Your task to perform on an android device: delete location history Image 0: 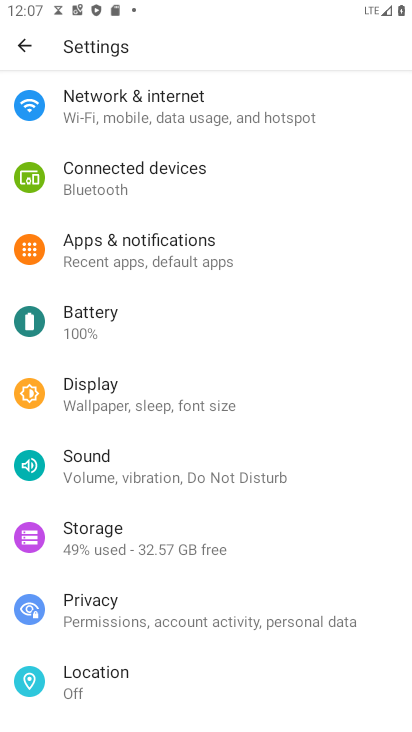
Step 0: press home button
Your task to perform on an android device: delete location history Image 1: 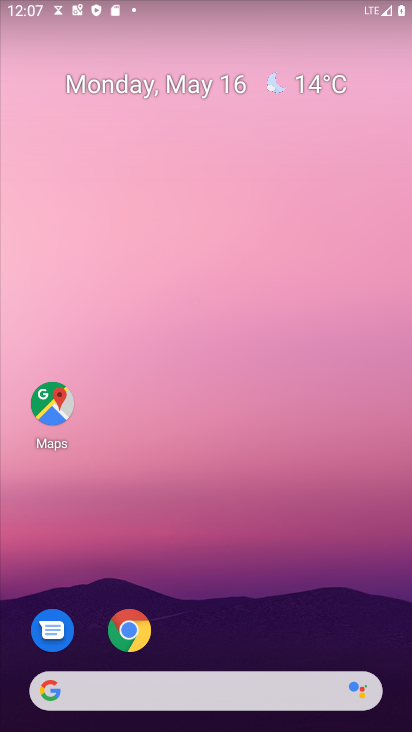
Step 1: drag from (35, 531) to (232, 131)
Your task to perform on an android device: delete location history Image 2: 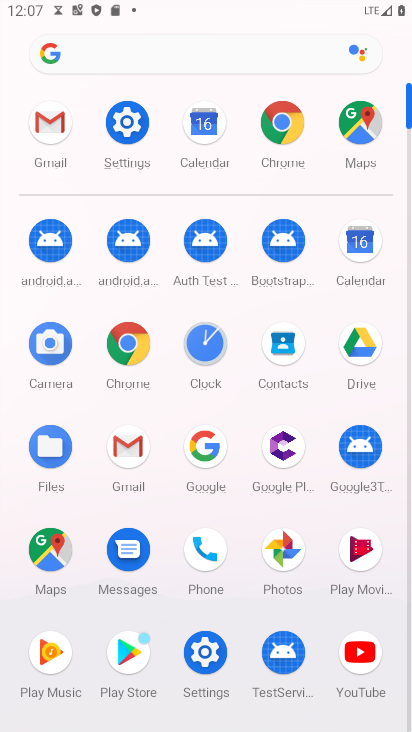
Step 2: click (115, 110)
Your task to perform on an android device: delete location history Image 3: 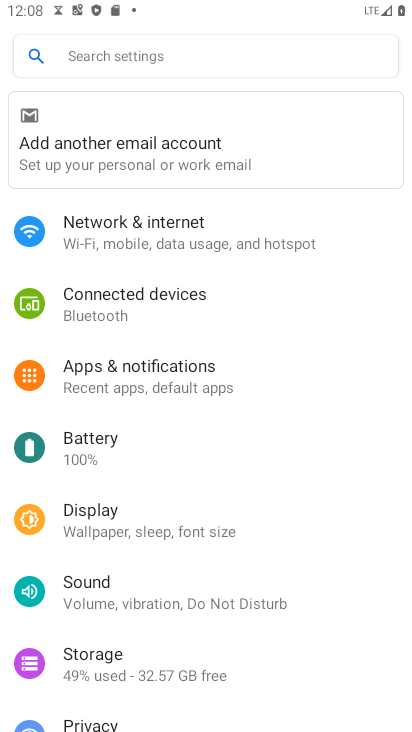
Step 3: drag from (71, 664) to (193, 303)
Your task to perform on an android device: delete location history Image 4: 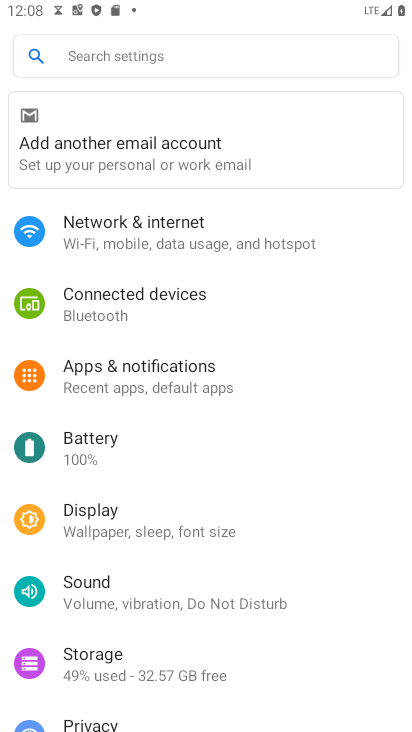
Step 4: drag from (59, 698) to (271, 147)
Your task to perform on an android device: delete location history Image 5: 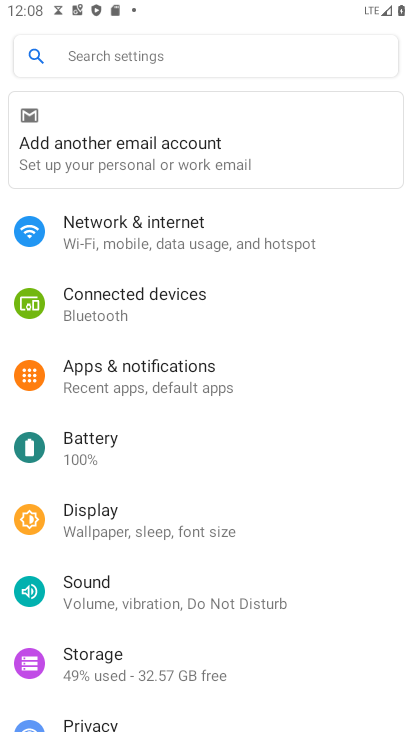
Step 5: drag from (124, 632) to (247, 201)
Your task to perform on an android device: delete location history Image 6: 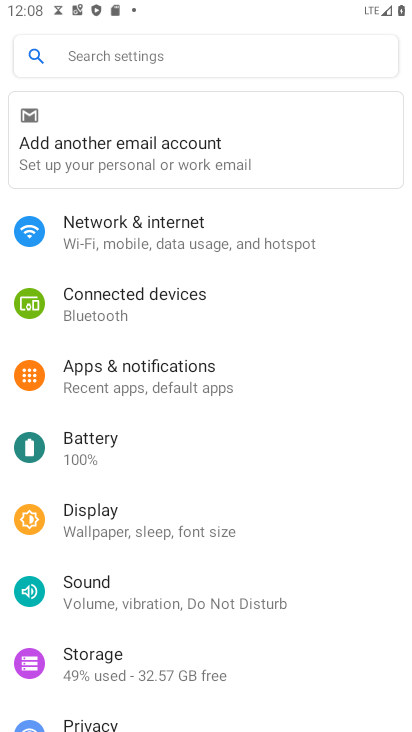
Step 6: drag from (47, 666) to (254, 272)
Your task to perform on an android device: delete location history Image 7: 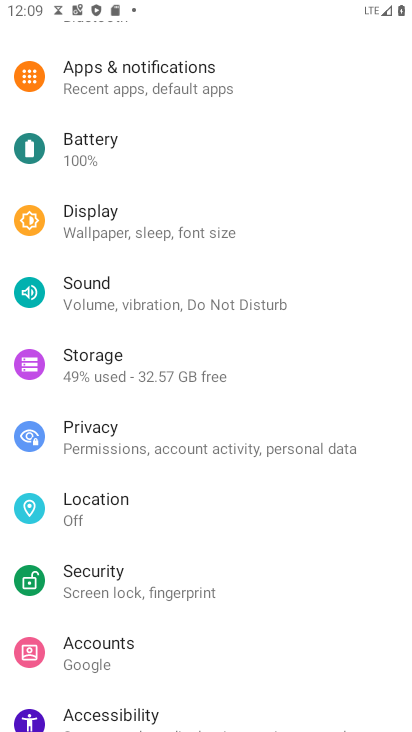
Step 7: drag from (2, 671) to (193, 313)
Your task to perform on an android device: delete location history Image 8: 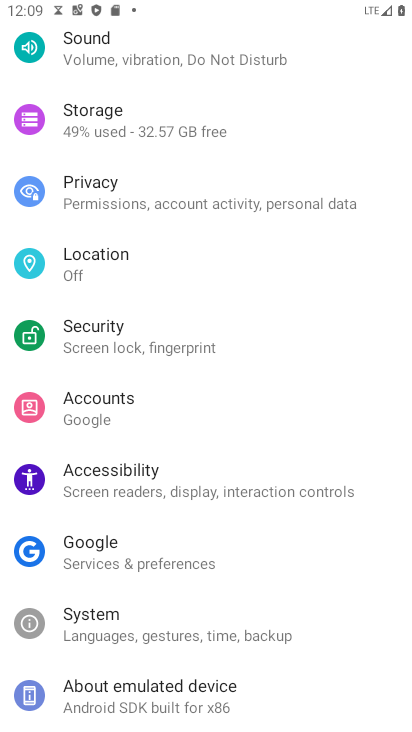
Step 8: drag from (164, 182) to (6, 679)
Your task to perform on an android device: delete location history Image 9: 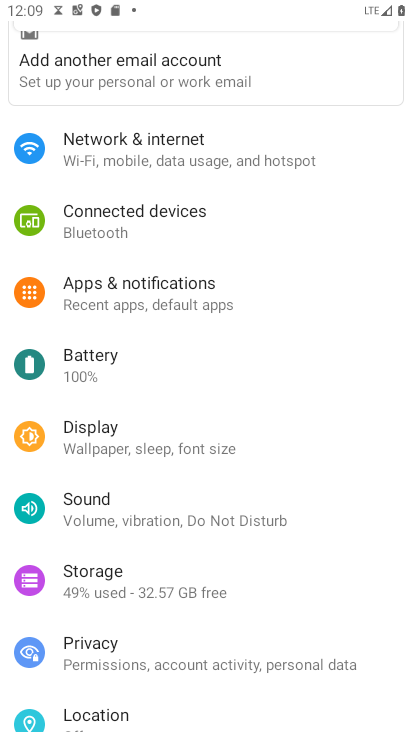
Step 9: click (127, 704)
Your task to perform on an android device: delete location history Image 10: 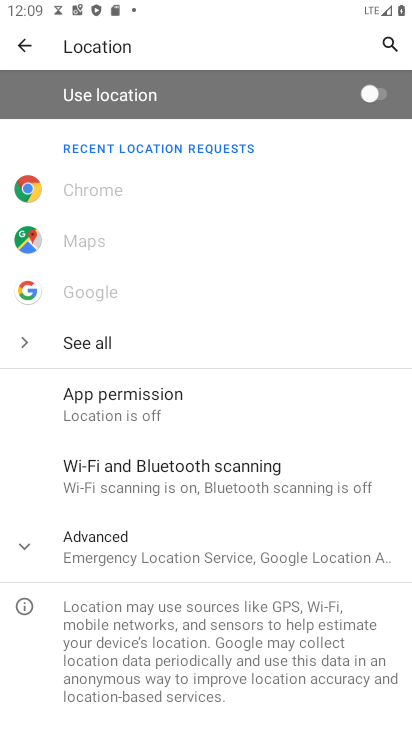
Step 10: click (163, 550)
Your task to perform on an android device: delete location history Image 11: 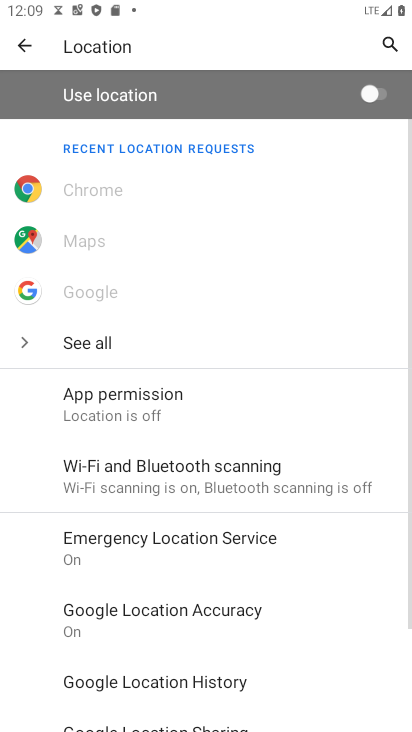
Step 11: drag from (75, 685) to (203, 281)
Your task to perform on an android device: delete location history Image 12: 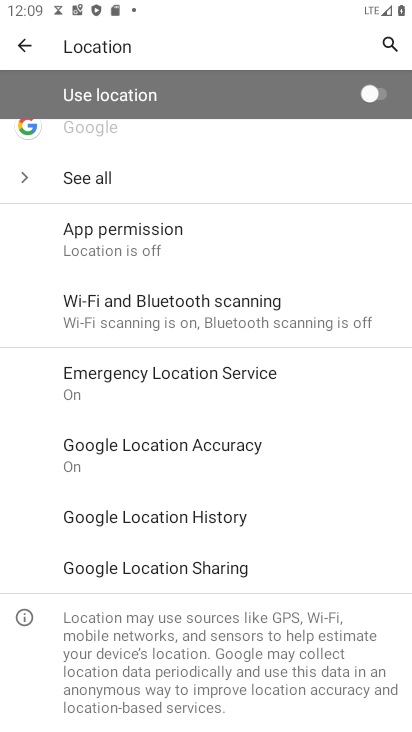
Step 12: click (114, 502)
Your task to perform on an android device: delete location history Image 13: 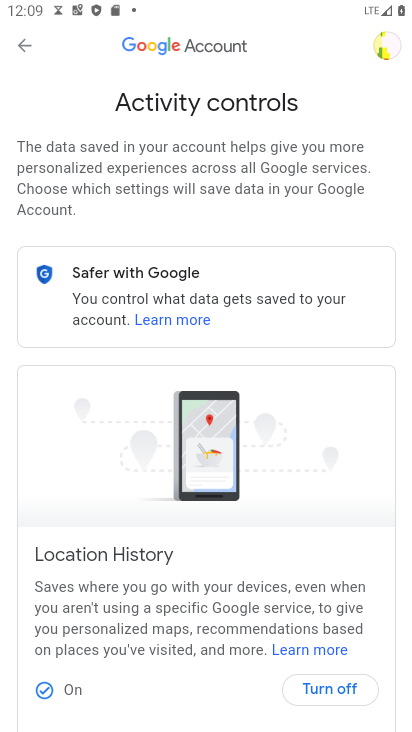
Step 13: drag from (21, 511) to (238, 171)
Your task to perform on an android device: delete location history Image 14: 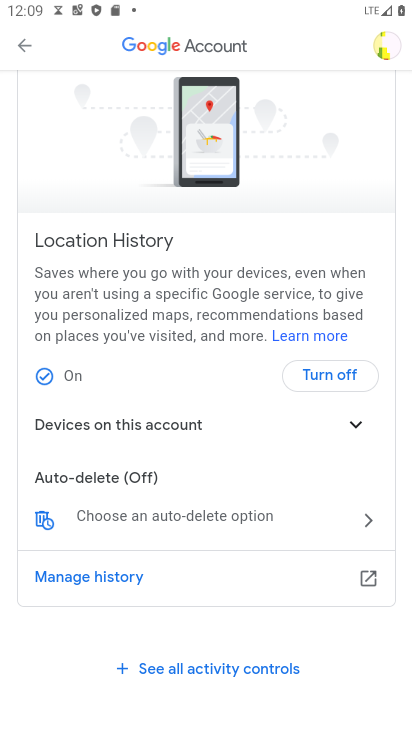
Step 14: click (182, 403)
Your task to perform on an android device: delete location history Image 15: 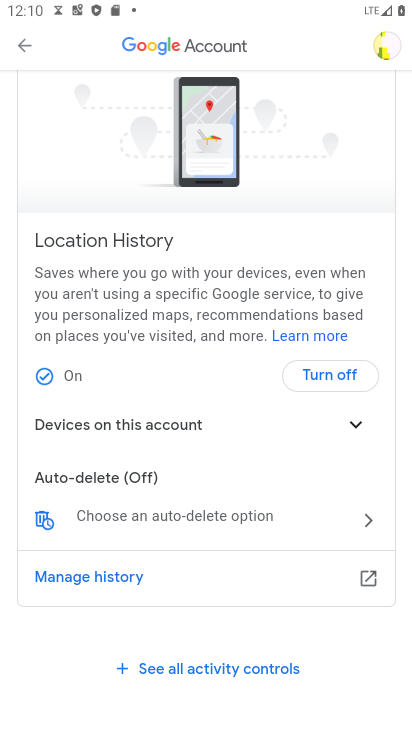
Step 15: click (127, 505)
Your task to perform on an android device: delete location history Image 16: 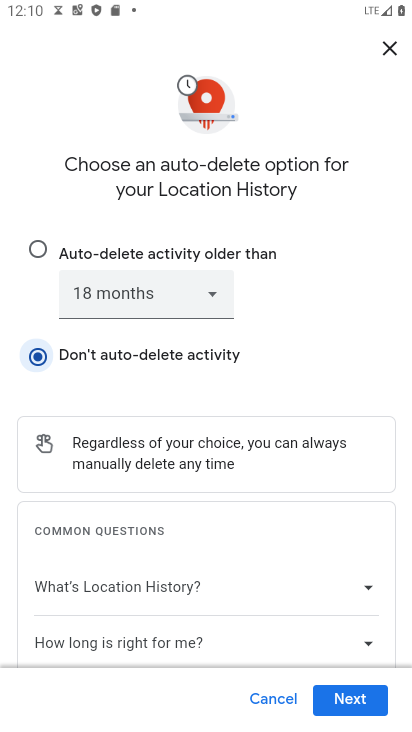
Step 16: click (371, 699)
Your task to perform on an android device: delete location history Image 17: 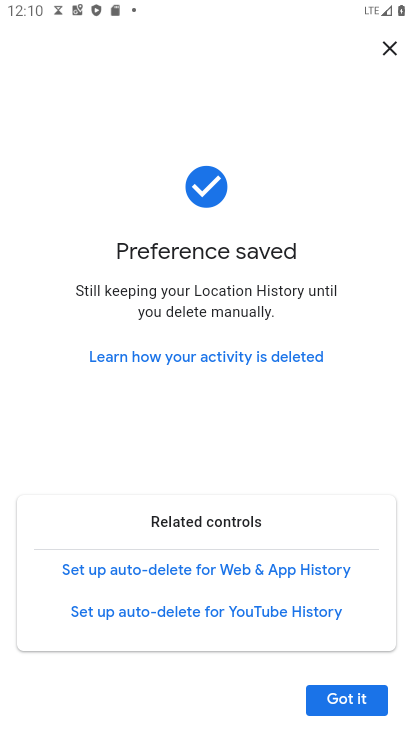
Step 17: click (379, 705)
Your task to perform on an android device: delete location history Image 18: 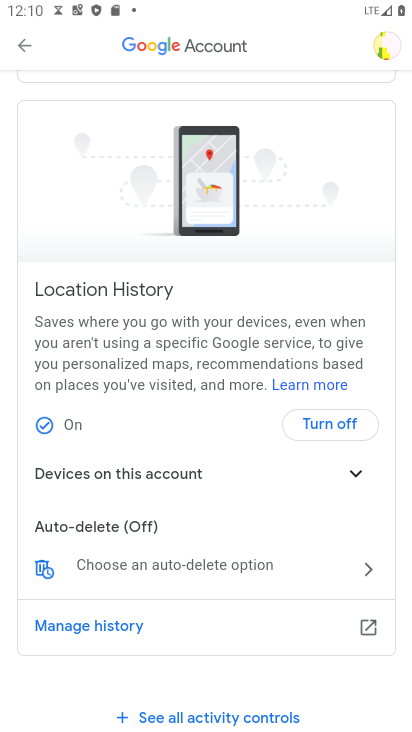
Step 18: task complete